Your task to perform on an android device: add a contact Image 0: 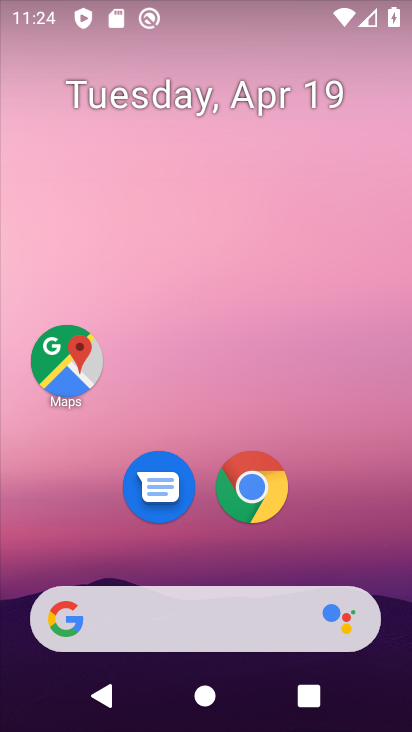
Step 0: press home button
Your task to perform on an android device: add a contact Image 1: 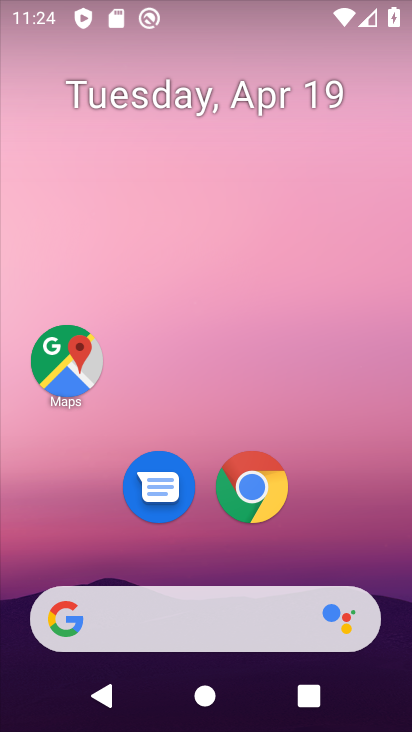
Step 1: drag from (343, 465) to (334, 240)
Your task to perform on an android device: add a contact Image 2: 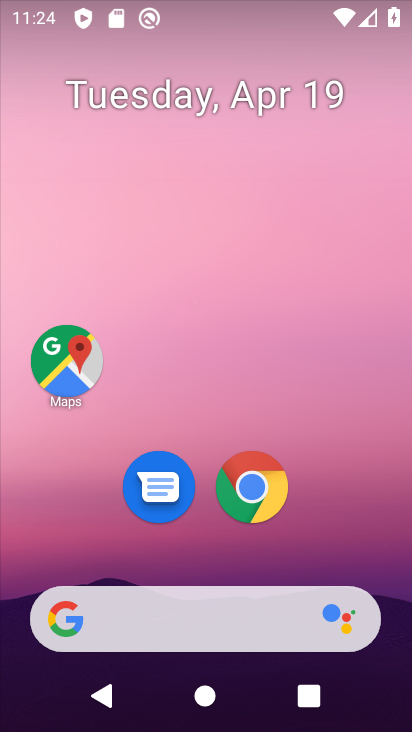
Step 2: drag from (375, 511) to (409, 209)
Your task to perform on an android device: add a contact Image 3: 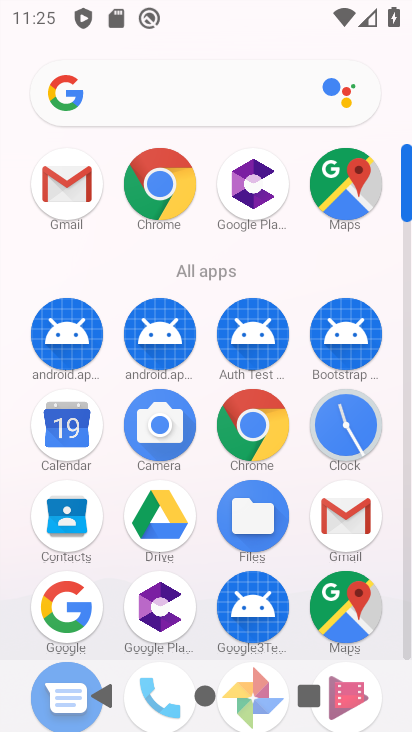
Step 3: click (407, 657)
Your task to perform on an android device: add a contact Image 4: 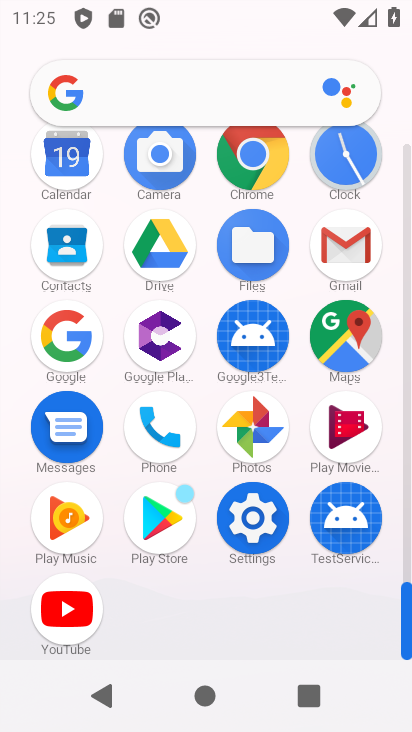
Step 4: click (409, 206)
Your task to perform on an android device: add a contact Image 5: 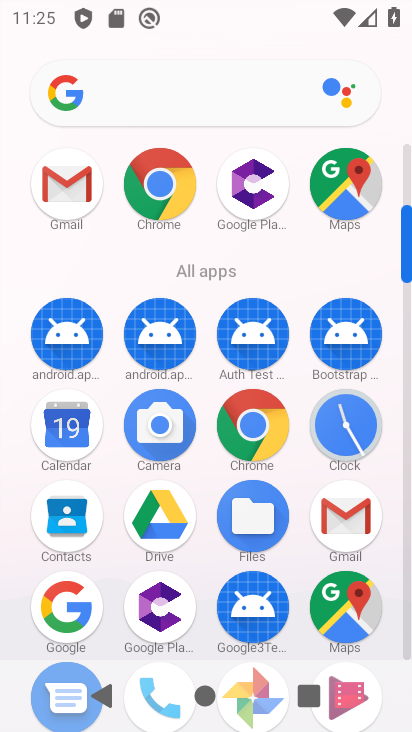
Step 5: click (54, 527)
Your task to perform on an android device: add a contact Image 6: 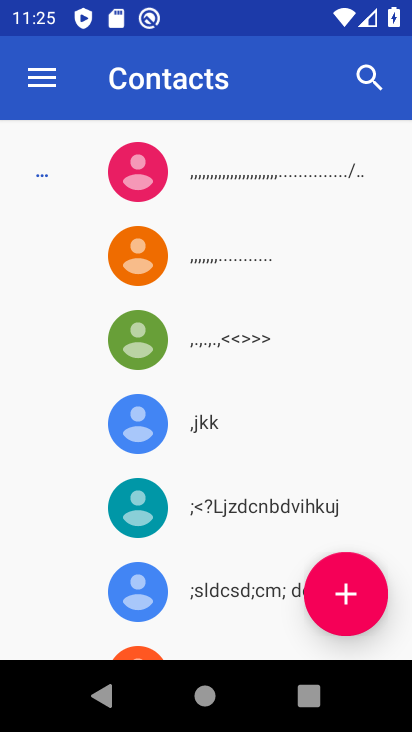
Step 6: click (320, 590)
Your task to perform on an android device: add a contact Image 7: 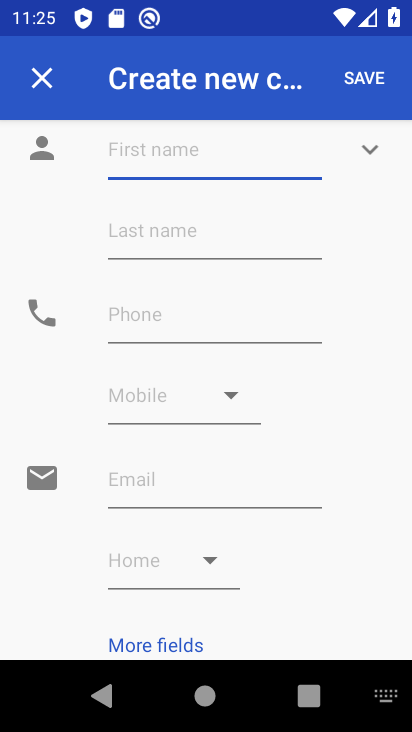
Step 7: type "roshni"
Your task to perform on an android device: add a contact Image 8: 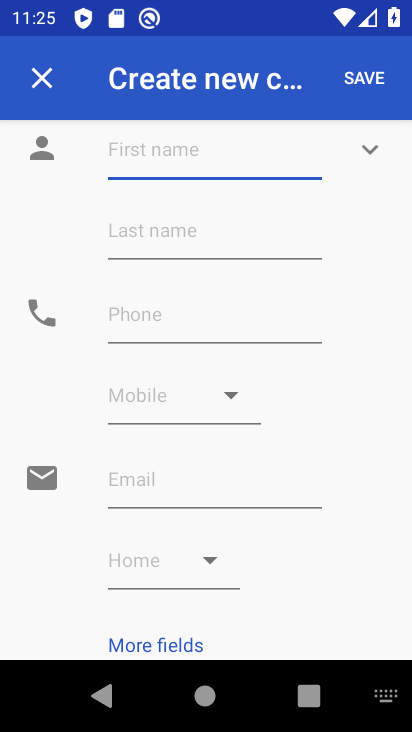
Step 8: click (353, 67)
Your task to perform on an android device: add a contact Image 9: 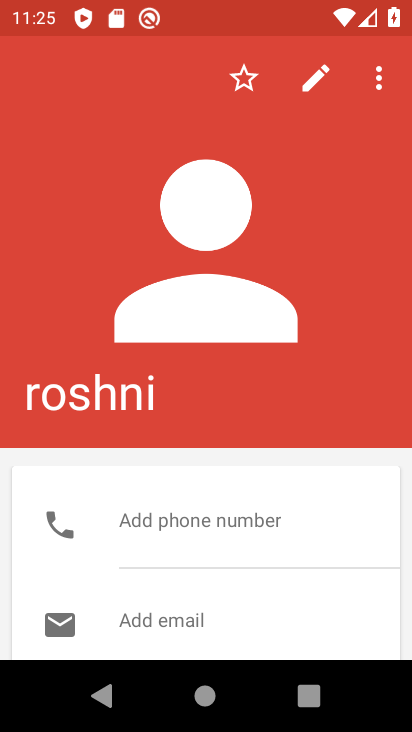
Step 9: task complete